Your task to perform on an android device: open wifi settings Image 0: 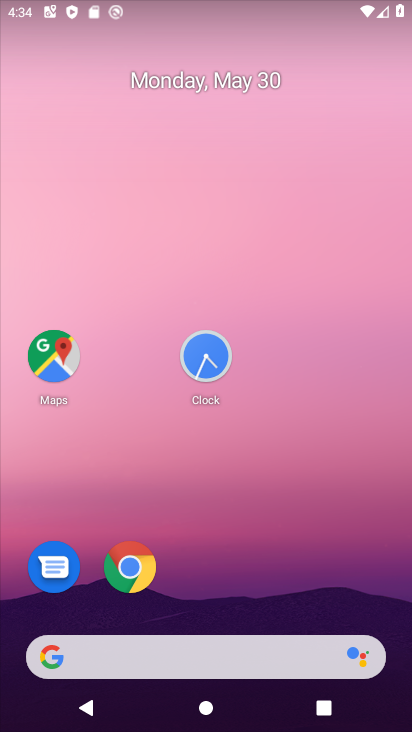
Step 0: drag from (268, 695) to (156, 87)
Your task to perform on an android device: open wifi settings Image 1: 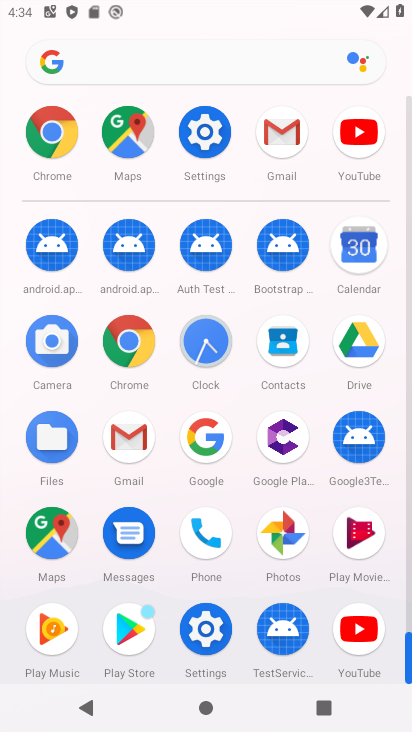
Step 1: click (206, 123)
Your task to perform on an android device: open wifi settings Image 2: 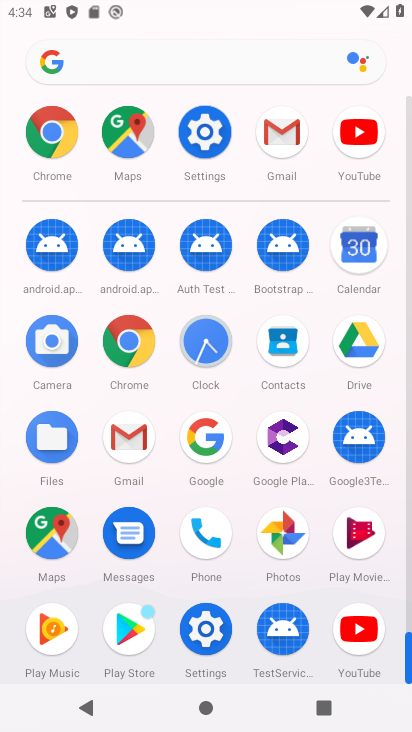
Step 2: click (205, 134)
Your task to perform on an android device: open wifi settings Image 3: 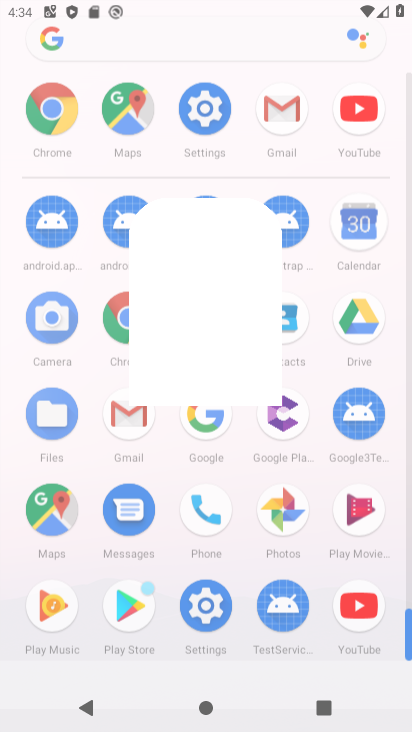
Step 3: click (207, 136)
Your task to perform on an android device: open wifi settings Image 4: 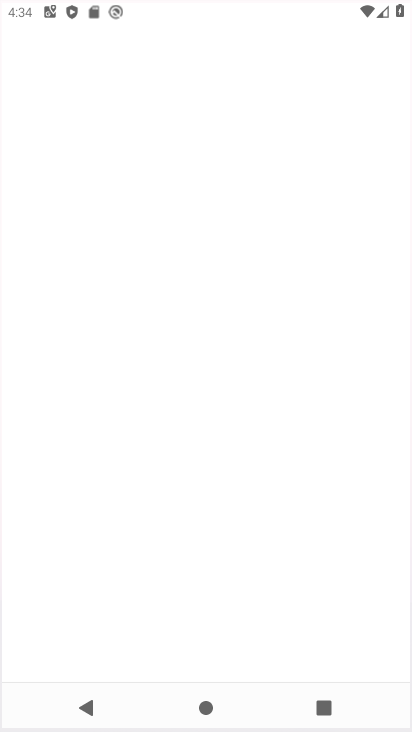
Step 4: click (207, 136)
Your task to perform on an android device: open wifi settings Image 5: 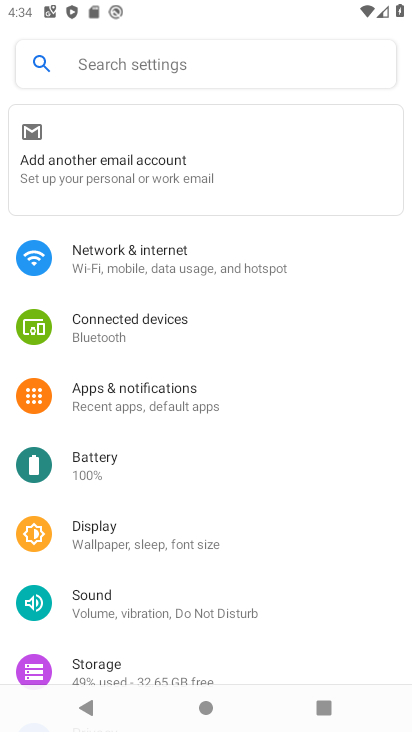
Step 5: drag from (129, 541) to (160, 304)
Your task to perform on an android device: open wifi settings Image 6: 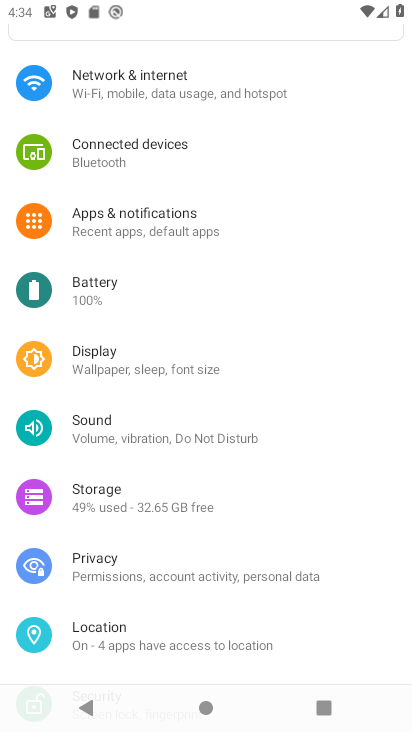
Step 6: drag from (208, 534) to (200, 300)
Your task to perform on an android device: open wifi settings Image 7: 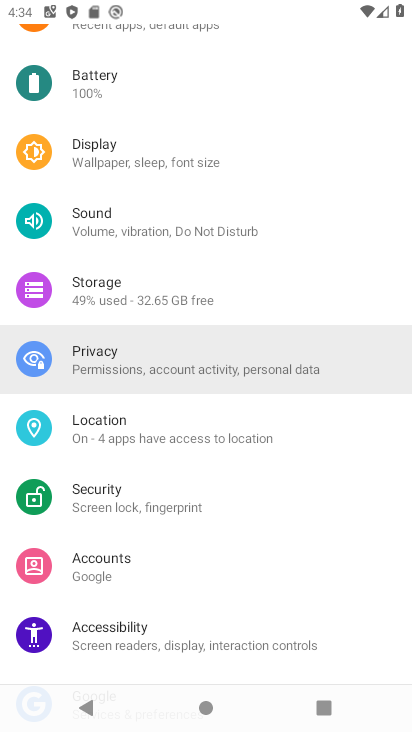
Step 7: drag from (196, 521) to (149, 201)
Your task to perform on an android device: open wifi settings Image 8: 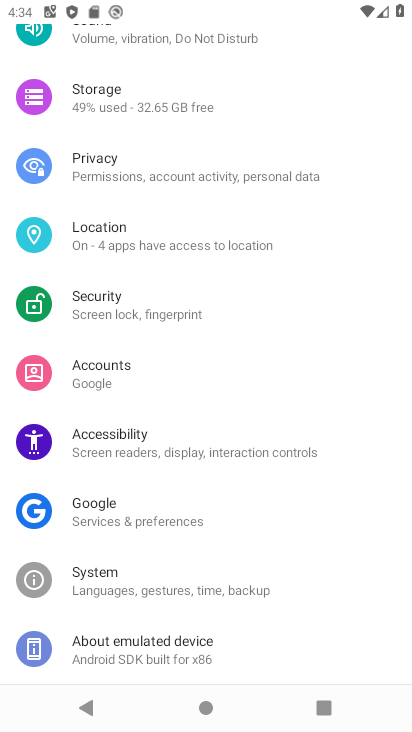
Step 8: drag from (150, 448) to (139, 204)
Your task to perform on an android device: open wifi settings Image 9: 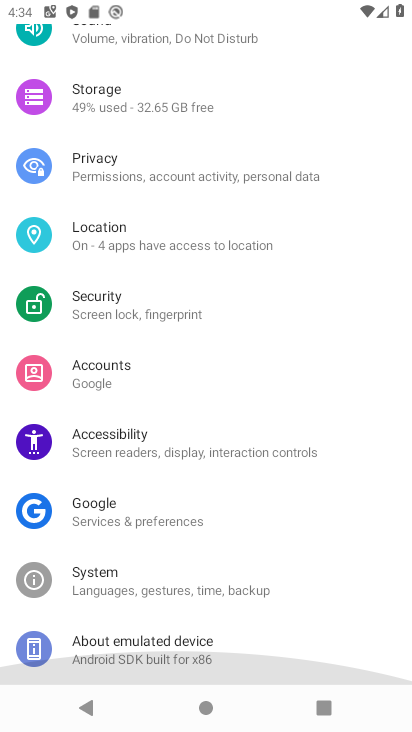
Step 9: drag from (188, 522) to (130, 256)
Your task to perform on an android device: open wifi settings Image 10: 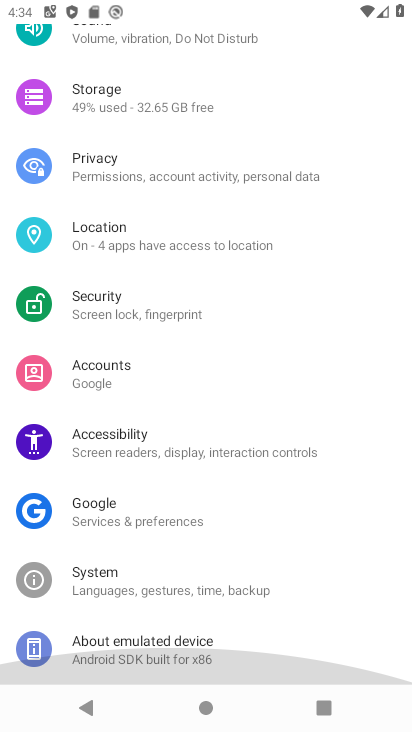
Step 10: drag from (176, 502) to (188, 23)
Your task to perform on an android device: open wifi settings Image 11: 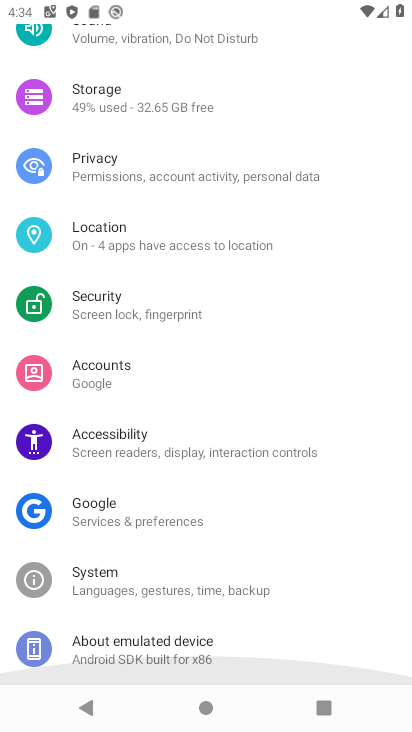
Step 11: drag from (210, 172) to (158, 74)
Your task to perform on an android device: open wifi settings Image 12: 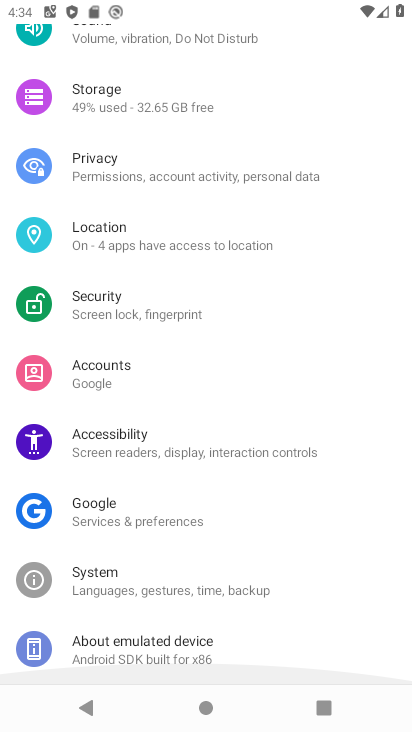
Step 12: drag from (219, 294) to (193, 141)
Your task to perform on an android device: open wifi settings Image 13: 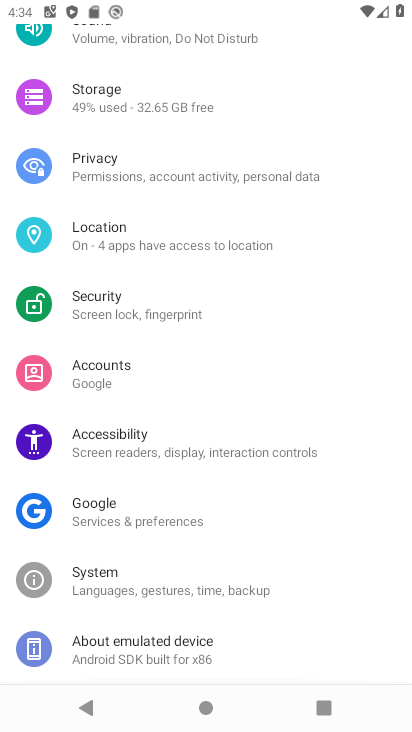
Step 13: drag from (104, 134) to (142, 436)
Your task to perform on an android device: open wifi settings Image 14: 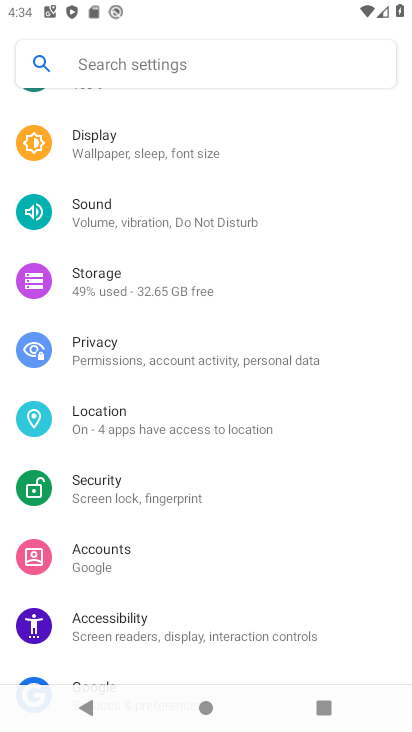
Step 14: drag from (137, 195) to (162, 631)
Your task to perform on an android device: open wifi settings Image 15: 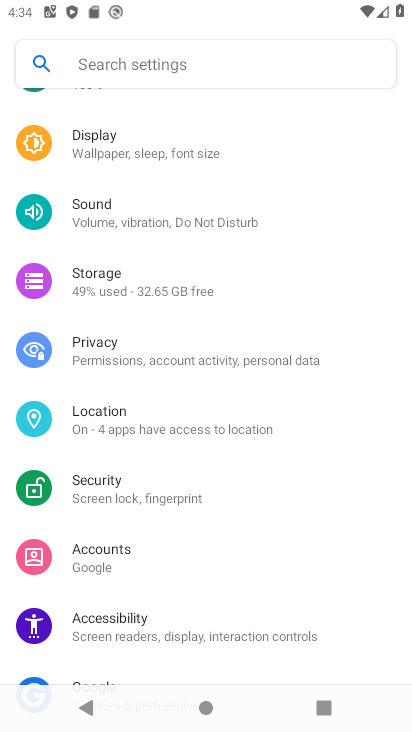
Step 15: drag from (162, 274) to (193, 546)
Your task to perform on an android device: open wifi settings Image 16: 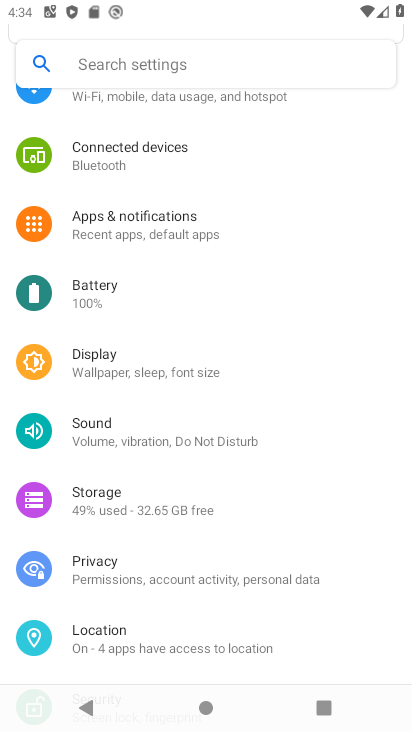
Step 16: drag from (214, 204) to (222, 512)
Your task to perform on an android device: open wifi settings Image 17: 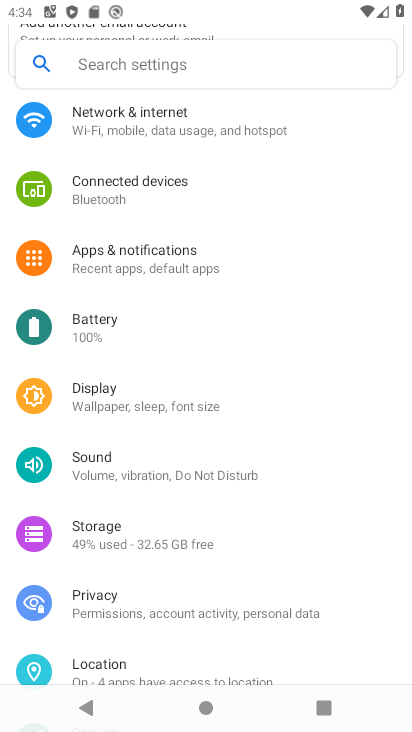
Step 17: drag from (142, 215) to (186, 599)
Your task to perform on an android device: open wifi settings Image 18: 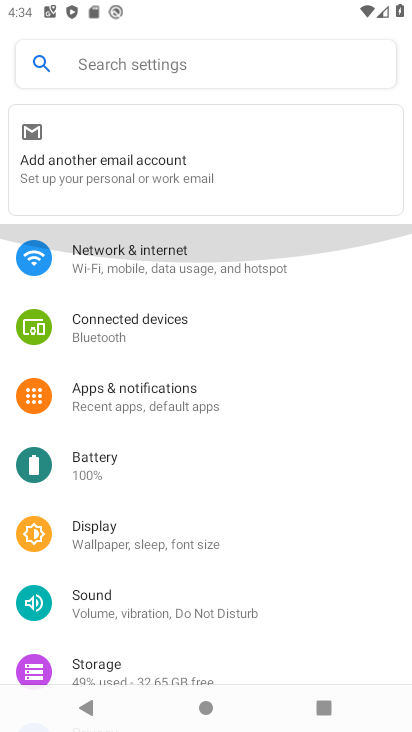
Step 18: drag from (168, 313) to (196, 656)
Your task to perform on an android device: open wifi settings Image 19: 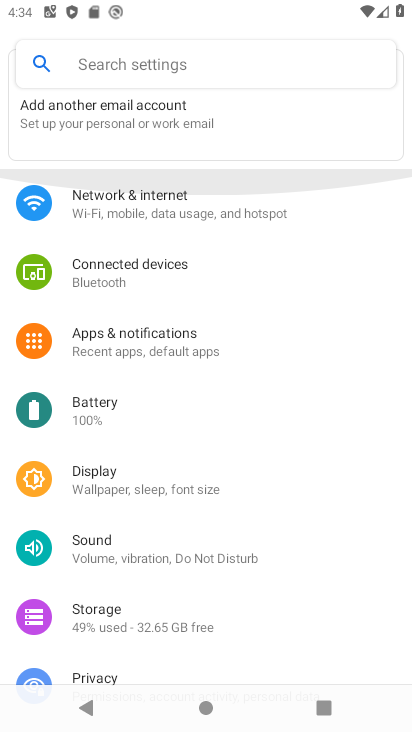
Step 19: drag from (118, 287) to (152, 728)
Your task to perform on an android device: open wifi settings Image 20: 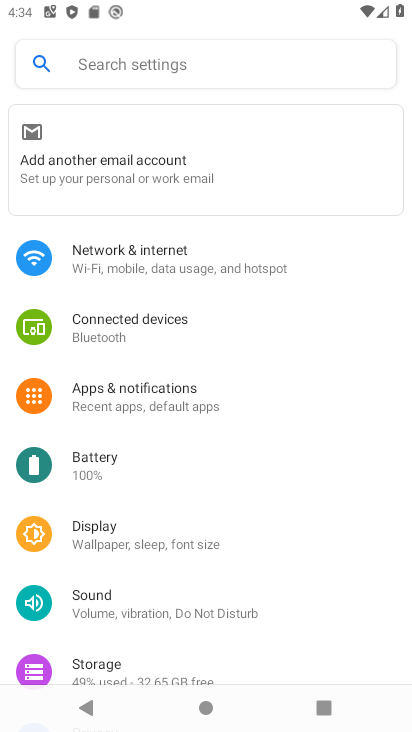
Step 20: click (143, 249)
Your task to perform on an android device: open wifi settings Image 21: 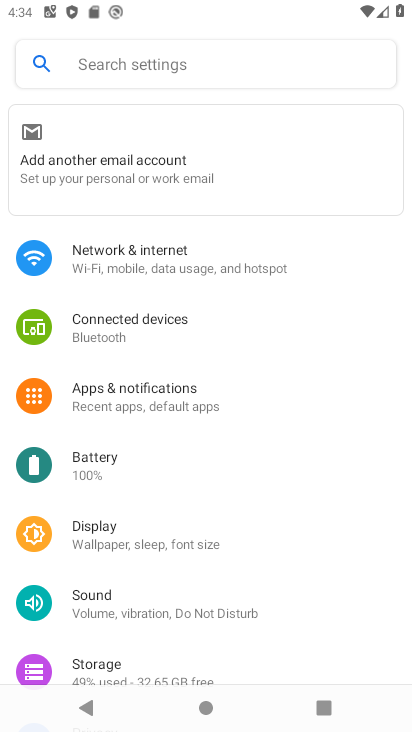
Step 21: drag from (143, 251) to (154, 289)
Your task to perform on an android device: open wifi settings Image 22: 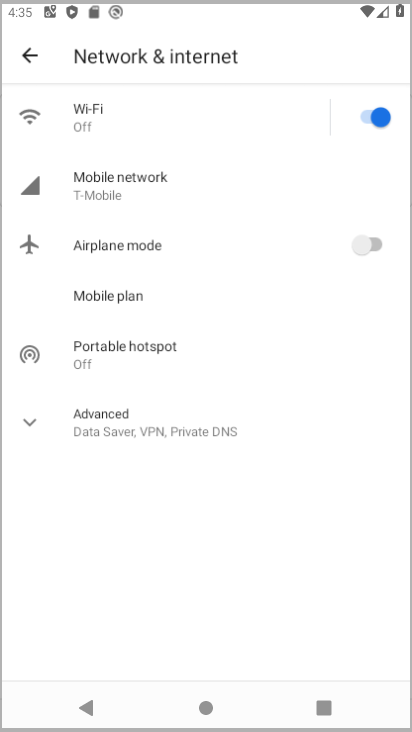
Step 22: click (152, 292)
Your task to perform on an android device: open wifi settings Image 23: 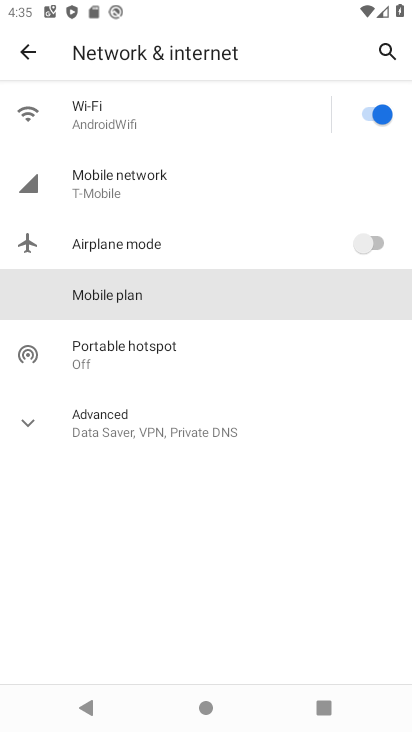
Step 23: click (151, 292)
Your task to perform on an android device: open wifi settings Image 24: 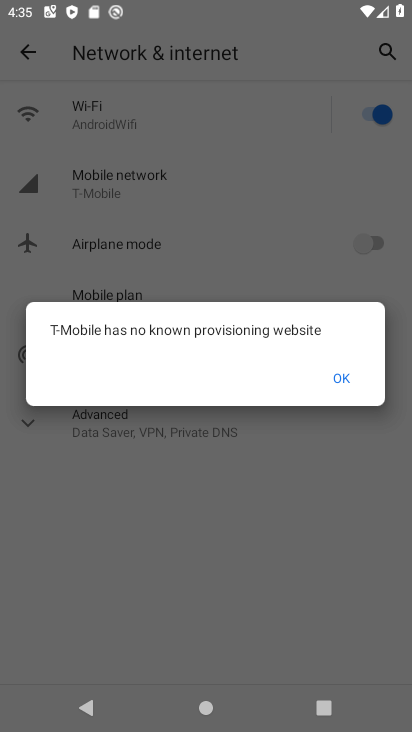
Step 24: click (339, 385)
Your task to perform on an android device: open wifi settings Image 25: 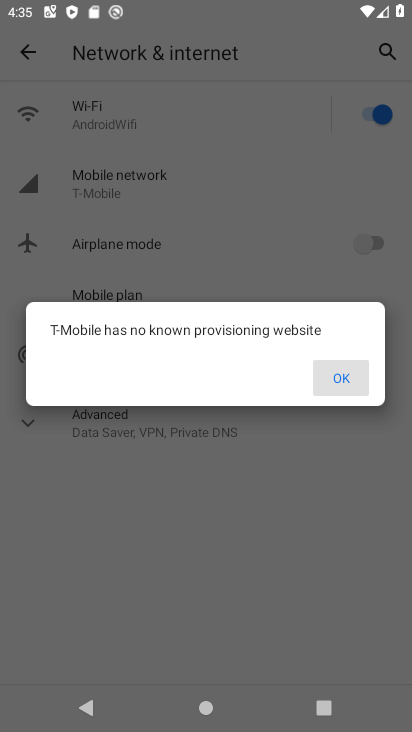
Step 25: click (339, 384)
Your task to perform on an android device: open wifi settings Image 26: 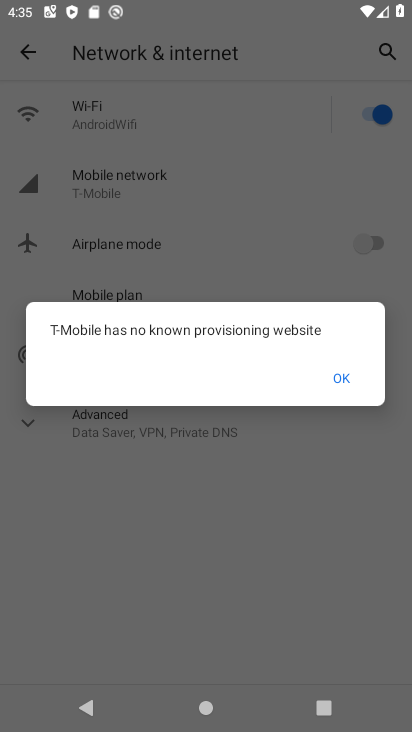
Step 26: click (341, 382)
Your task to perform on an android device: open wifi settings Image 27: 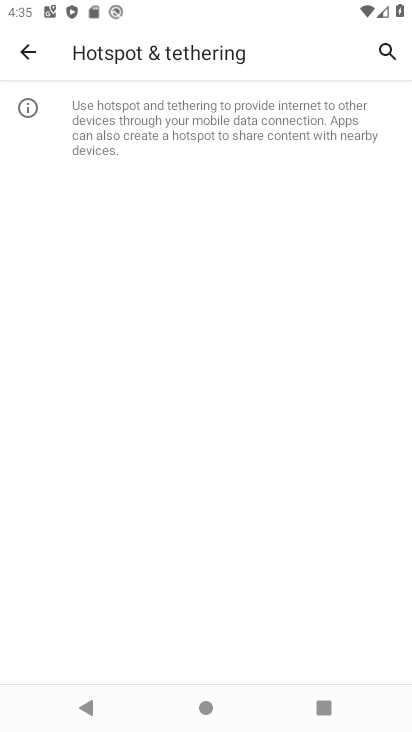
Step 27: click (22, 47)
Your task to perform on an android device: open wifi settings Image 28: 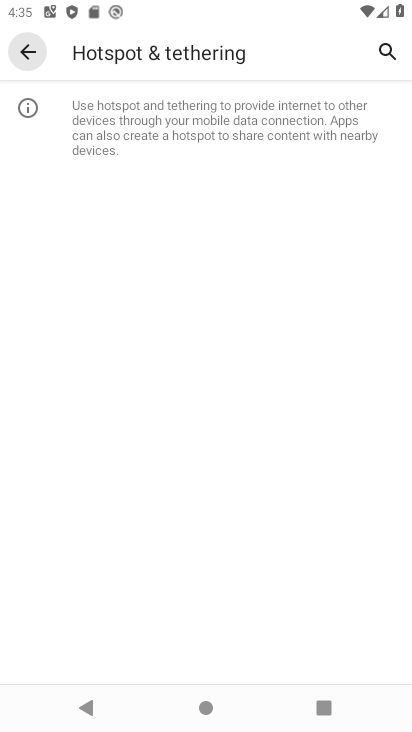
Step 28: click (27, 46)
Your task to perform on an android device: open wifi settings Image 29: 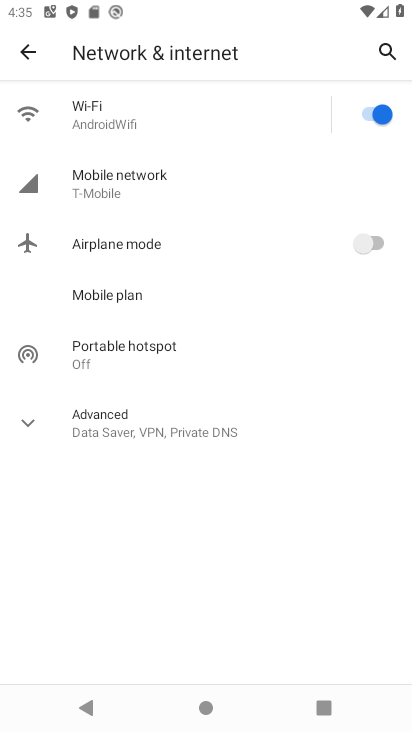
Step 29: task complete